Your task to perform on an android device: Turn on the flashlight Image 0: 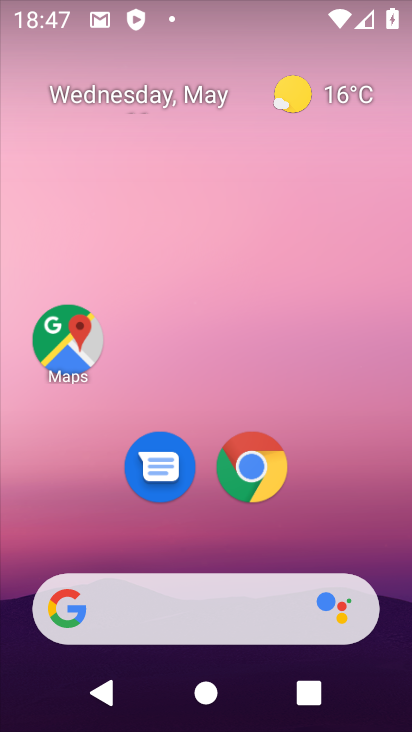
Step 0: drag from (348, 470) to (202, 21)
Your task to perform on an android device: Turn on the flashlight Image 1: 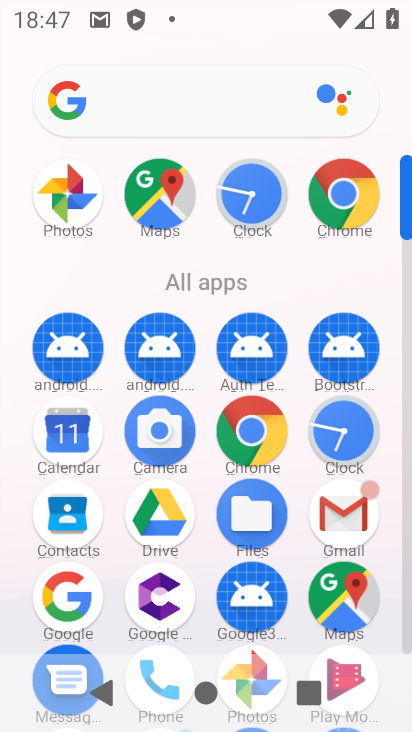
Step 1: drag from (204, 546) to (199, 231)
Your task to perform on an android device: Turn on the flashlight Image 2: 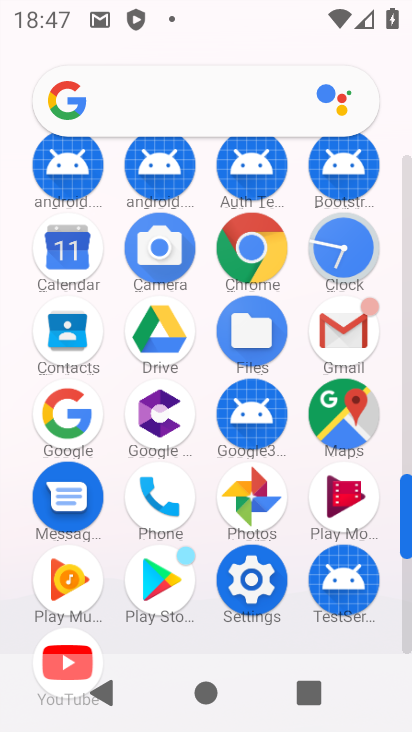
Step 2: click (256, 574)
Your task to perform on an android device: Turn on the flashlight Image 3: 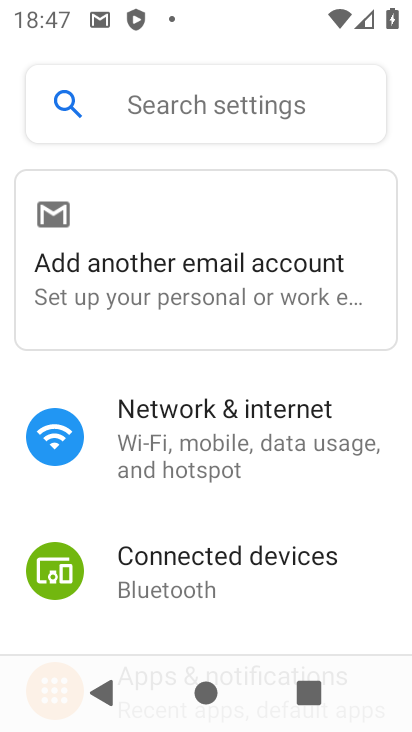
Step 3: drag from (187, 504) to (166, 264)
Your task to perform on an android device: Turn on the flashlight Image 4: 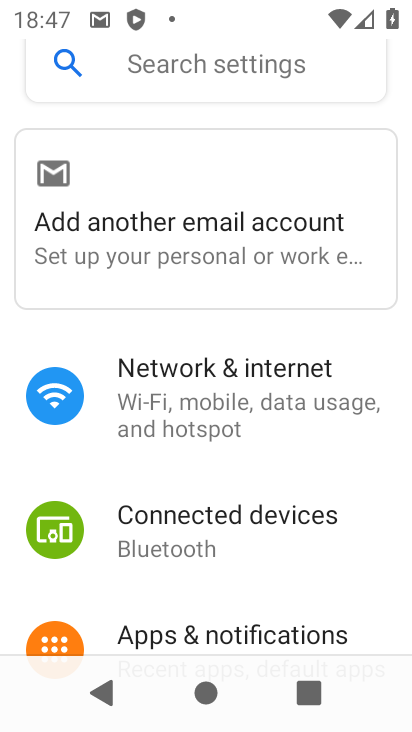
Step 4: click (203, 370)
Your task to perform on an android device: Turn on the flashlight Image 5: 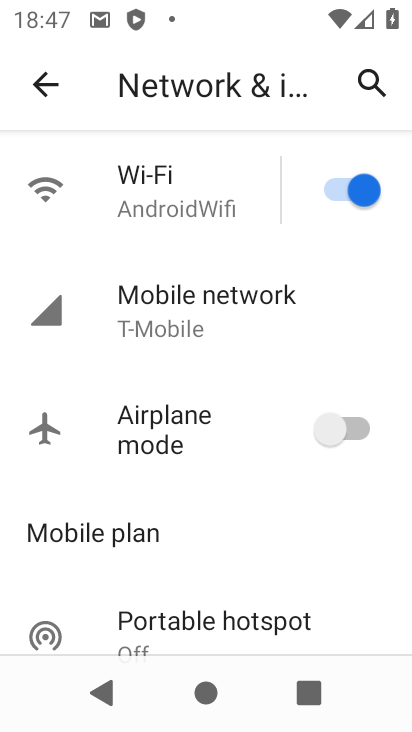
Step 5: task complete